Your task to perform on an android device: change the clock style Image 0: 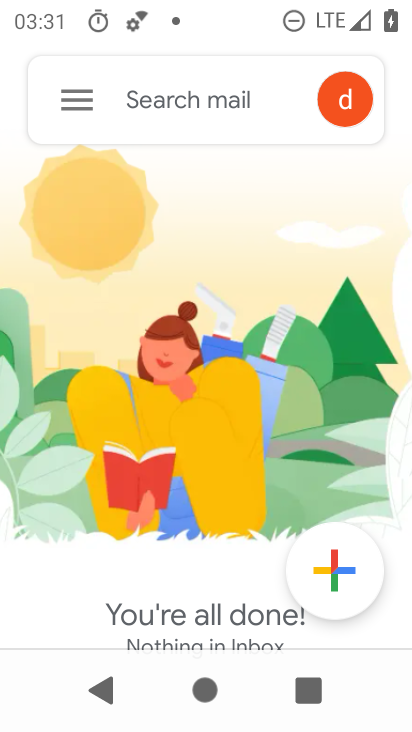
Step 0: press home button
Your task to perform on an android device: change the clock style Image 1: 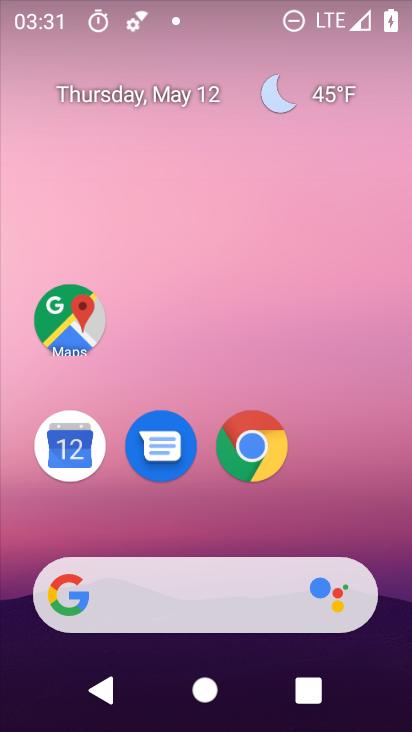
Step 1: drag from (247, 516) to (267, 161)
Your task to perform on an android device: change the clock style Image 2: 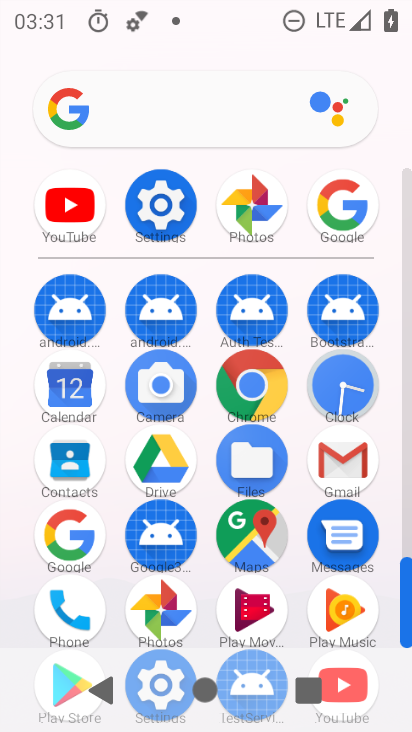
Step 2: click (337, 383)
Your task to perform on an android device: change the clock style Image 3: 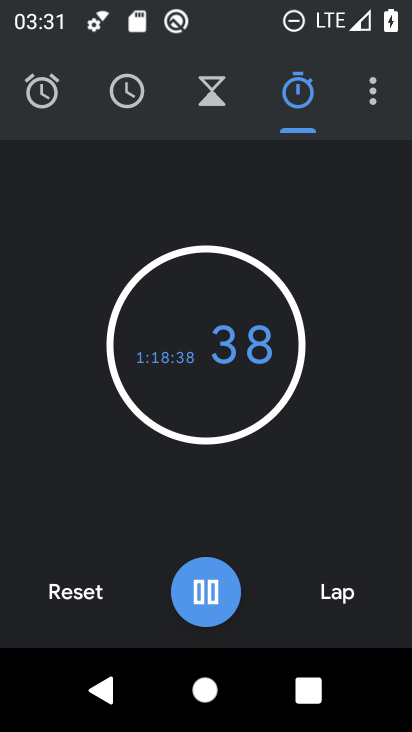
Step 3: click (362, 94)
Your task to perform on an android device: change the clock style Image 4: 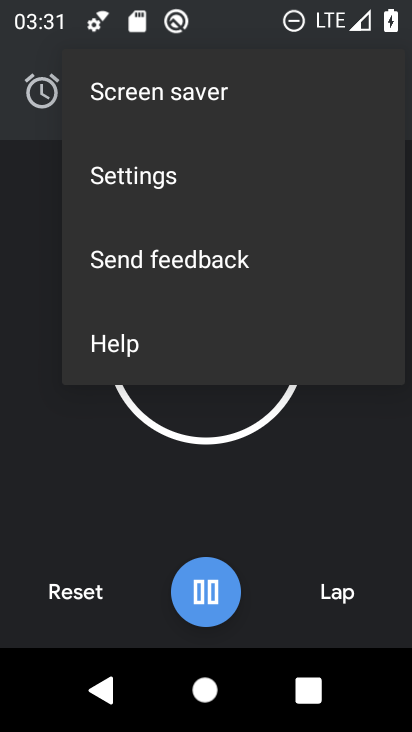
Step 4: click (188, 180)
Your task to perform on an android device: change the clock style Image 5: 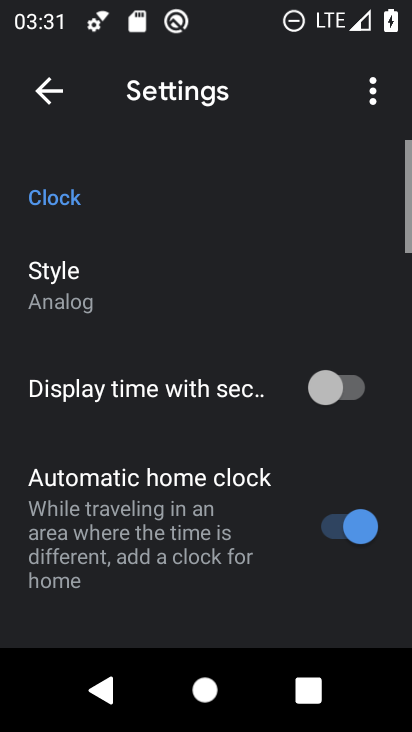
Step 5: click (129, 253)
Your task to perform on an android device: change the clock style Image 6: 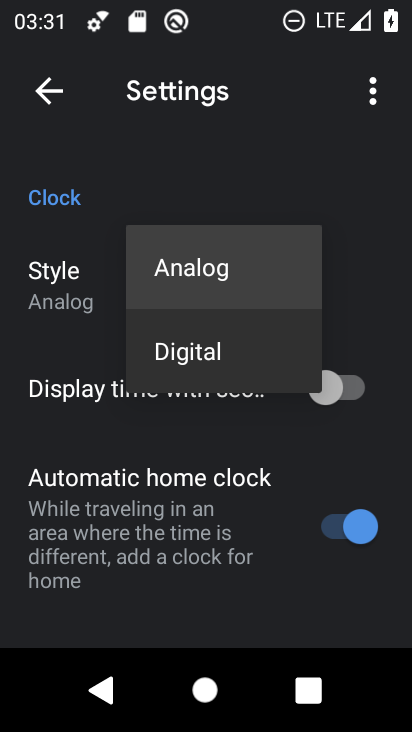
Step 6: click (171, 354)
Your task to perform on an android device: change the clock style Image 7: 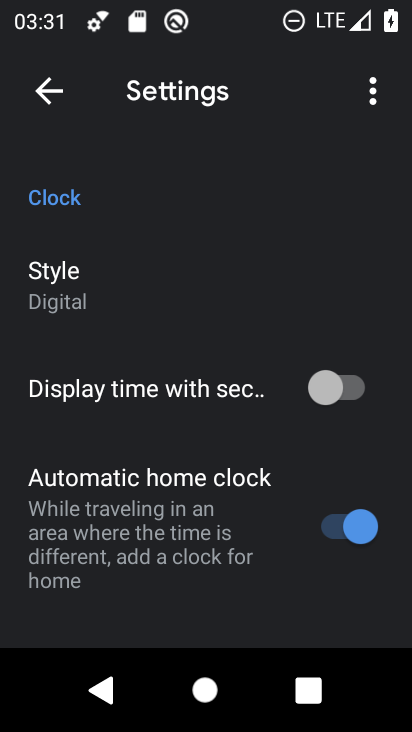
Step 7: task complete